Your task to perform on an android device: turn off location history Image 0: 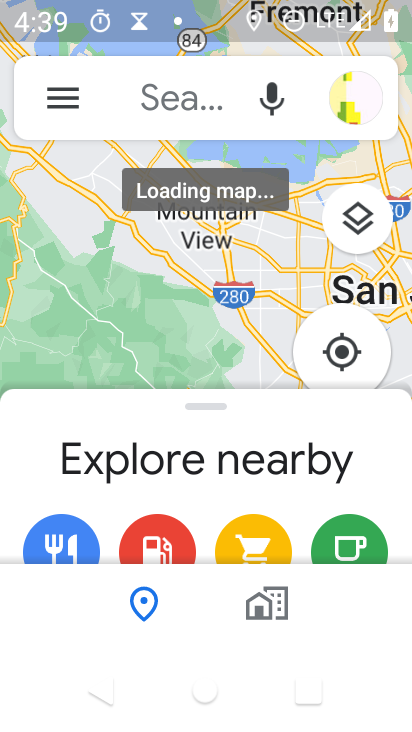
Step 0: press home button
Your task to perform on an android device: turn off location history Image 1: 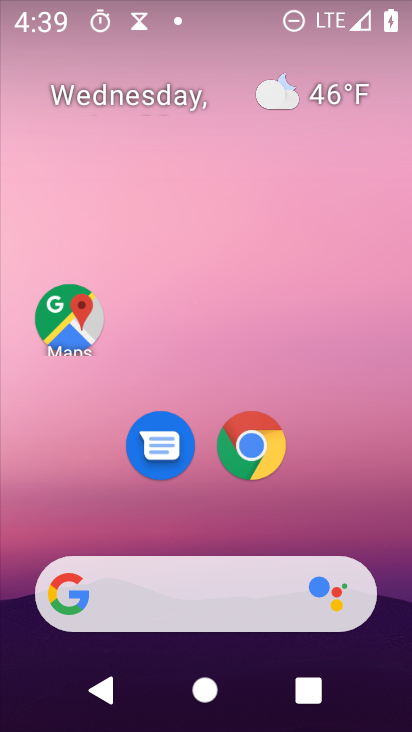
Step 1: drag from (299, 527) to (286, 26)
Your task to perform on an android device: turn off location history Image 2: 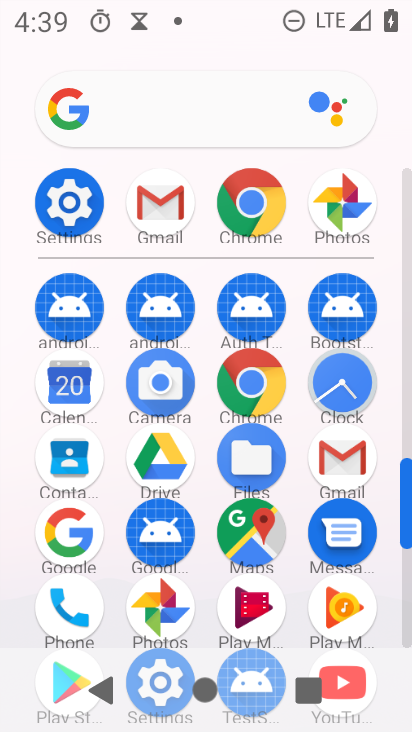
Step 2: click (76, 201)
Your task to perform on an android device: turn off location history Image 3: 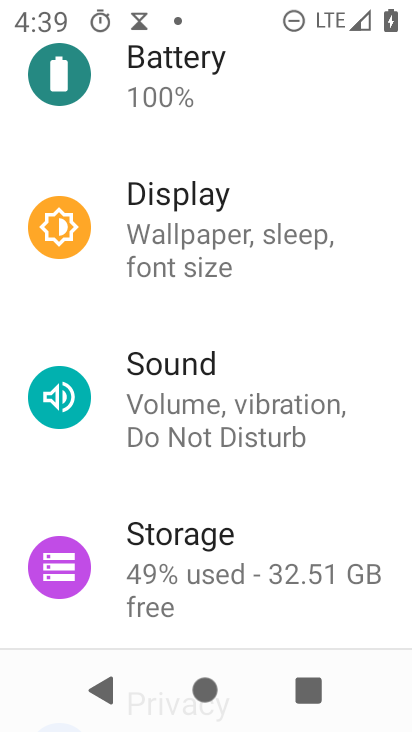
Step 3: drag from (266, 520) to (300, 353)
Your task to perform on an android device: turn off location history Image 4: 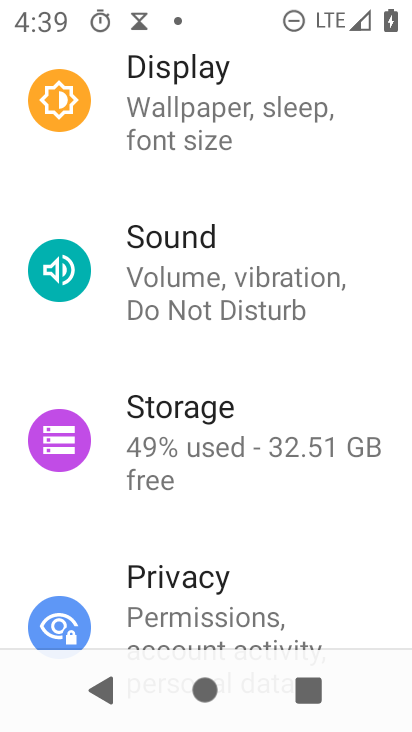
Step 4: drag from (226, 524) to (294, 373)
Your task to perform on an android device: turn off location history Image 5: 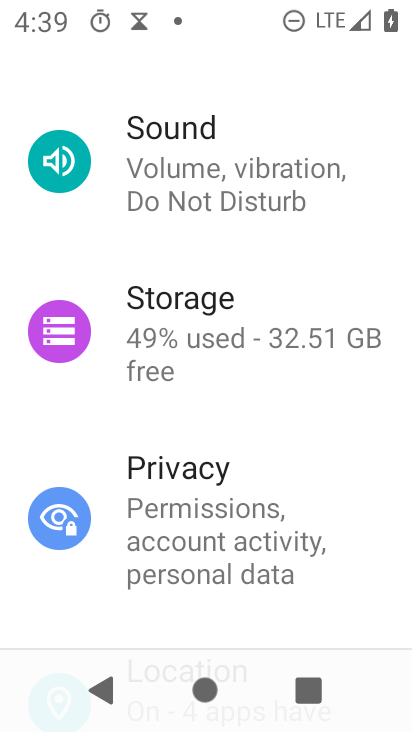
Step 5: drag from (285, 490) to (326, 339)
Your task to perform on an android device: turn off location history Image 6: 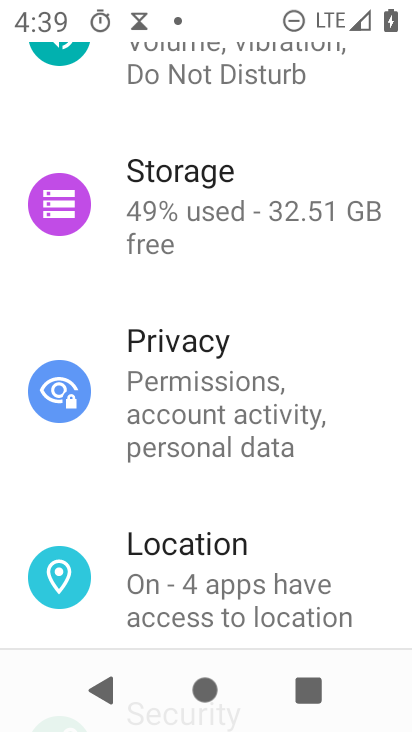
Step 6: drag from (268, 514) to (311, 379)
Your task to perform on an android device: turn off location history Image 7: 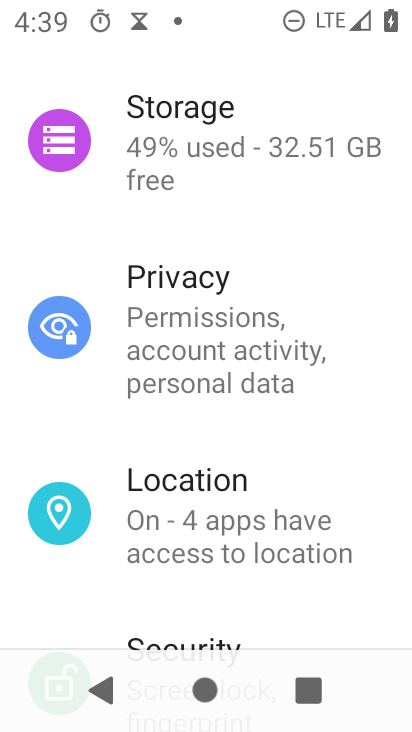
Step 7: click (223, 482)
Your task to perform on an android device: turn off location history Image 8: 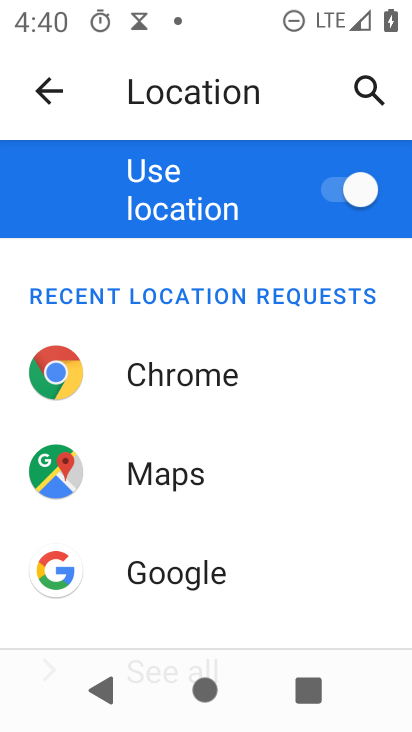
Step 8: drag from (234, 535) to (287, 342)
Your task to perform on an android device: turn off location history Image 9: 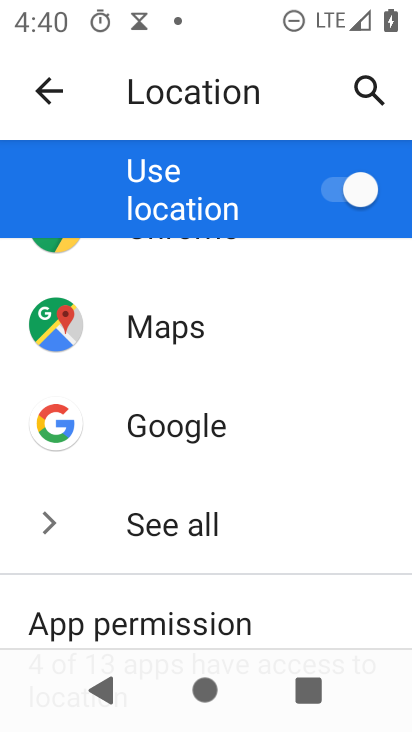
Step 9: drag from (262, 516) to (304, 353)
Your task to perform on an android device: turn off location history Image 10: 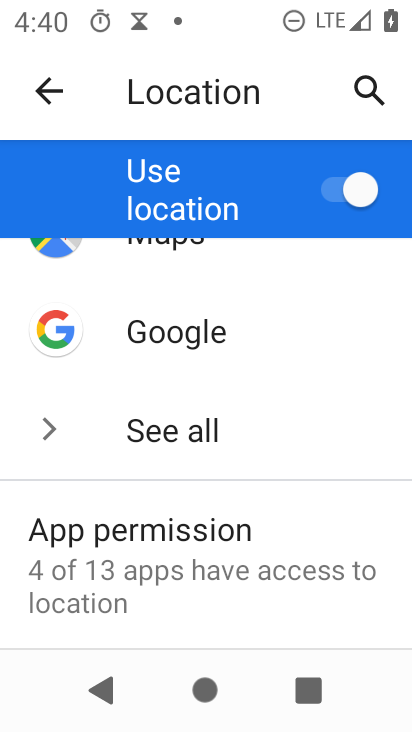
Step 10: drag from (299, 443) to (326, 343)
Your task to perform on an android device: turn off location history Image 11: 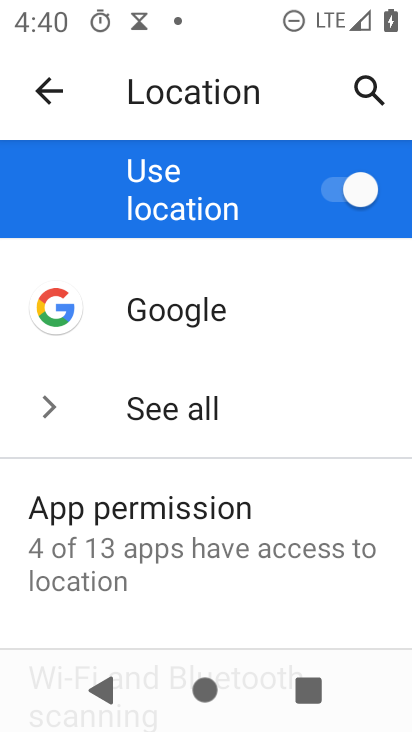
Step 11: drag from (256, 583) to (316, 333)
Your task to perform on an android device: turn off location history Image 12: 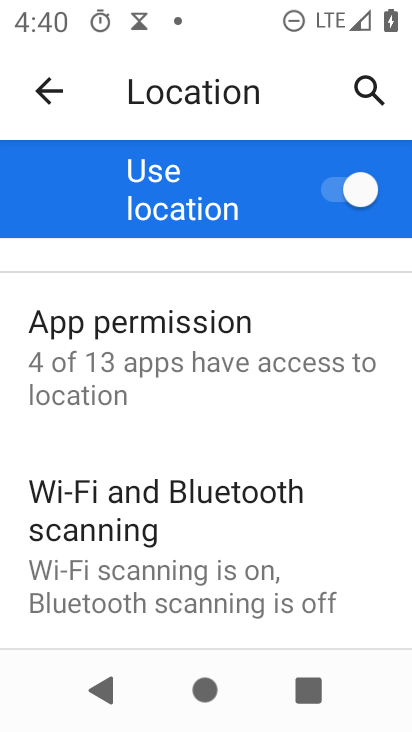
Step 12: drag from (265, 554) to (324, 286)
Your task to perform on an android device: turn off location history Image 13: 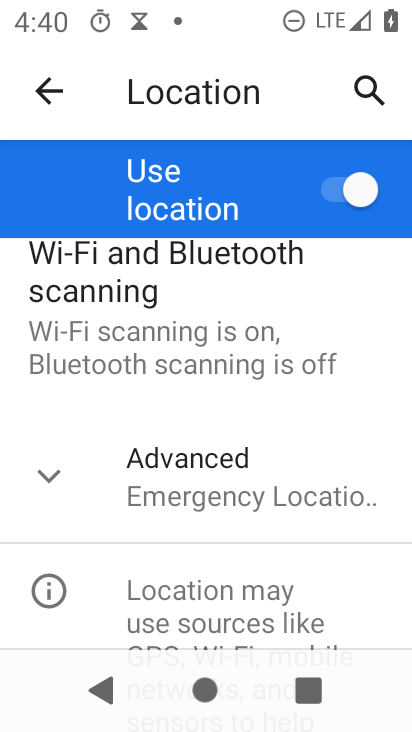
Step 13: click (234, 494)
Your task to perform on an android device: turn off location history Image 14: 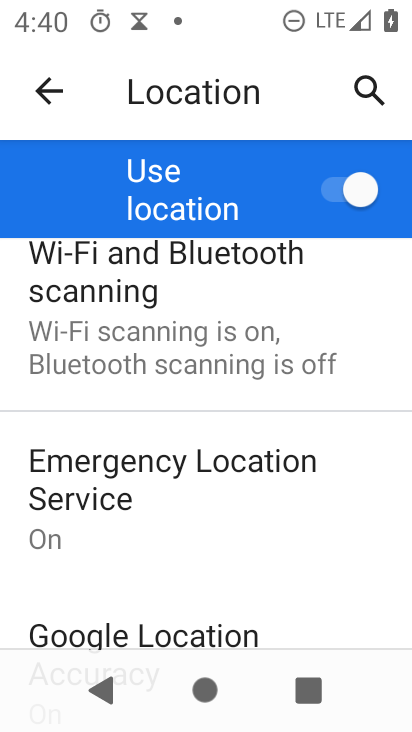
Step 14: task complete